Your task to perform on an android device: View the shopping cart on target.com. Search for razer huntsman on target.com, select the first entry, add it to the cart, then select checkout. Image 0: 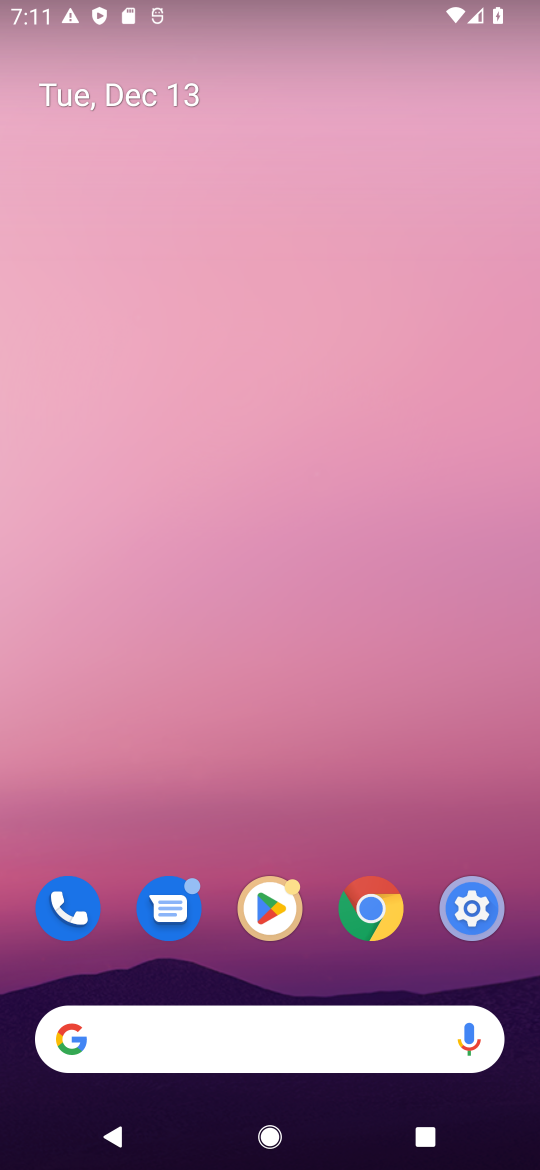
Step 0: press home button
Your task to perform on an android device: View the shopping cart on target.com. Search for razer huntsman on target.com, select the first entry, add it to the cart, then select checkout. Image 1: 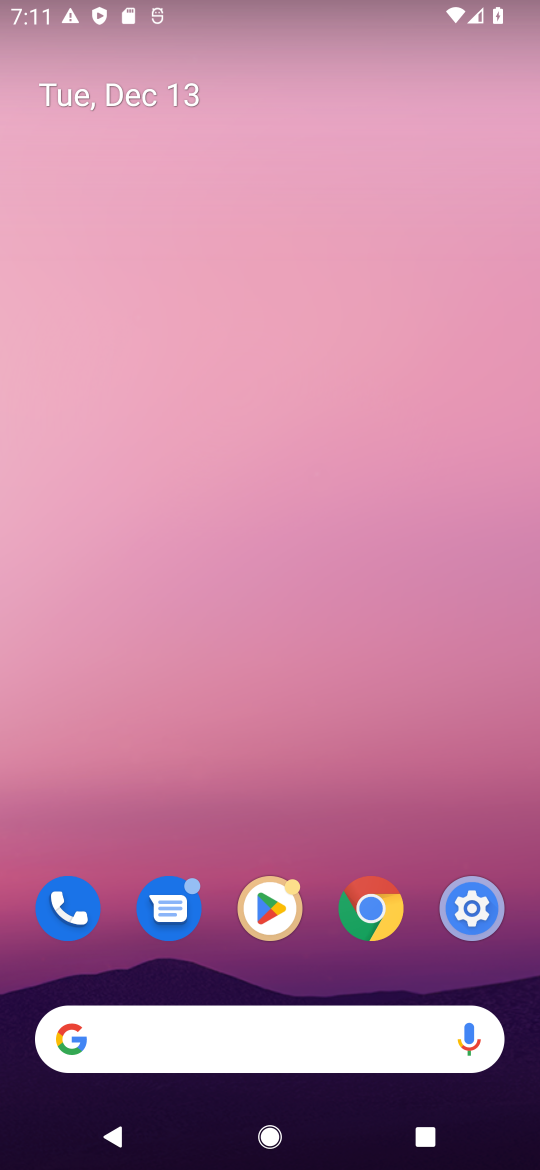
Step 1: click (104, 1032)
Your task to perform on an android device: View the shopping cart on target.com. Search for razer huntsman on target.com, select the first entry, add it to the cart, then select checkout. Image 2: 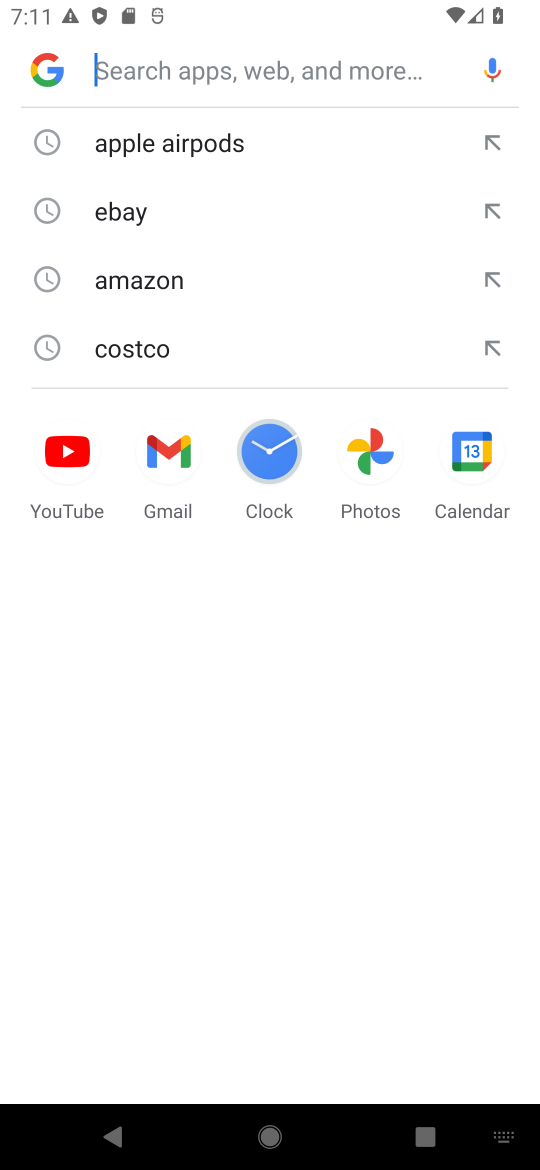
Step 2: type "target.com"
Your task to perform on an android device: View the shopping cart on target.com. Search for razer huntsman on target.com, select the first entry, add it to the cart, then select checkout. Image 3: 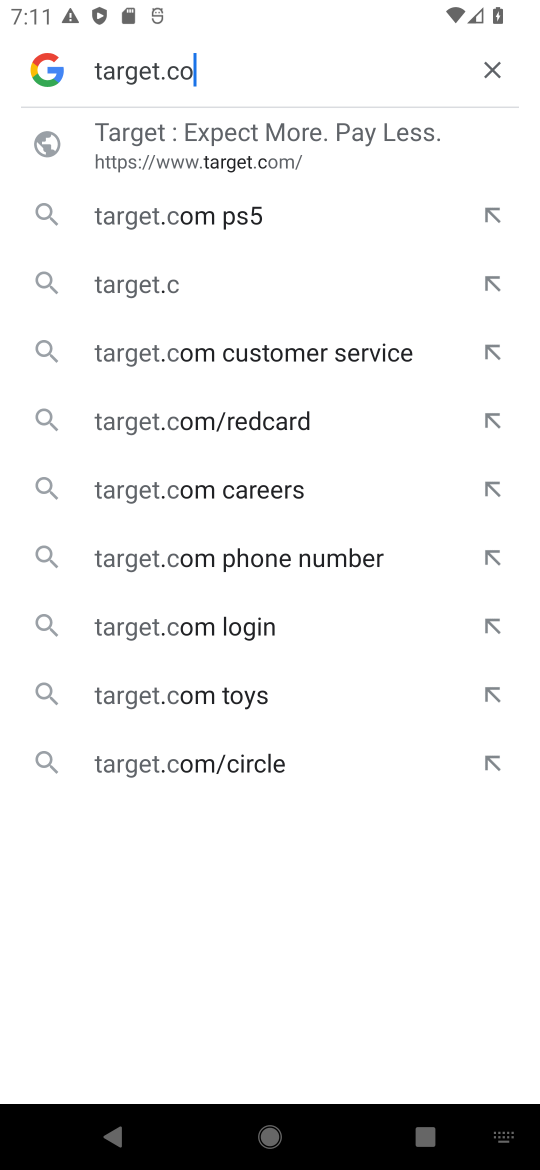
Step 3: press enter
Your task to perform on an android device: View the shopping cart on target.com. Search for razer huntsman on target.com, select the first entry, add it to the cart, then select checkout. Image 4: 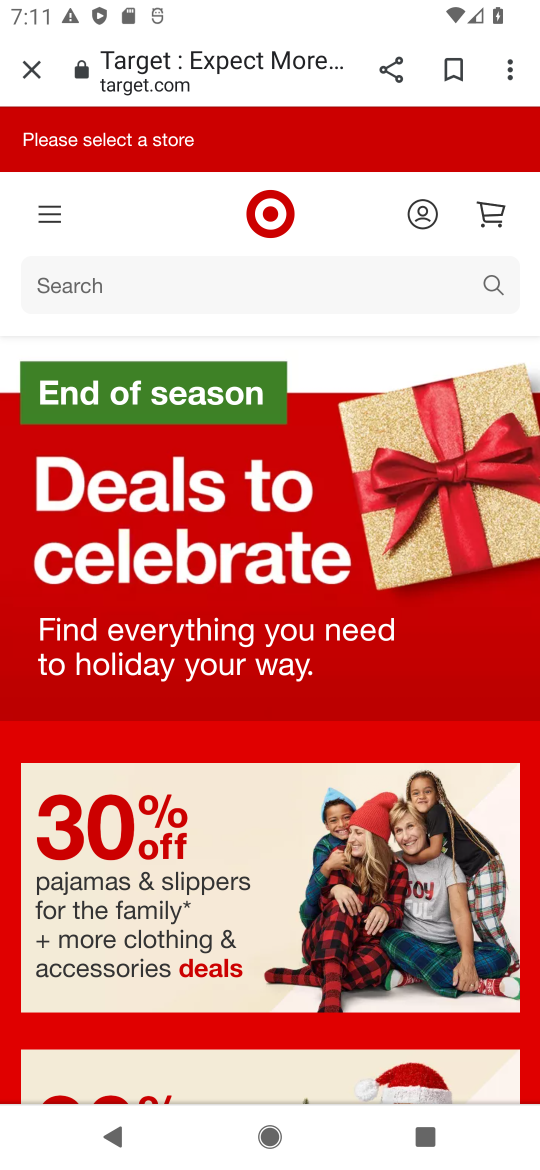
Step 4: click (491, 213)
Your task to perform on an android device: View the shopping cart on target.com. Search for razer huntsman on target.com, select the first entry, add it to the cart, then select checkout. Image 5: 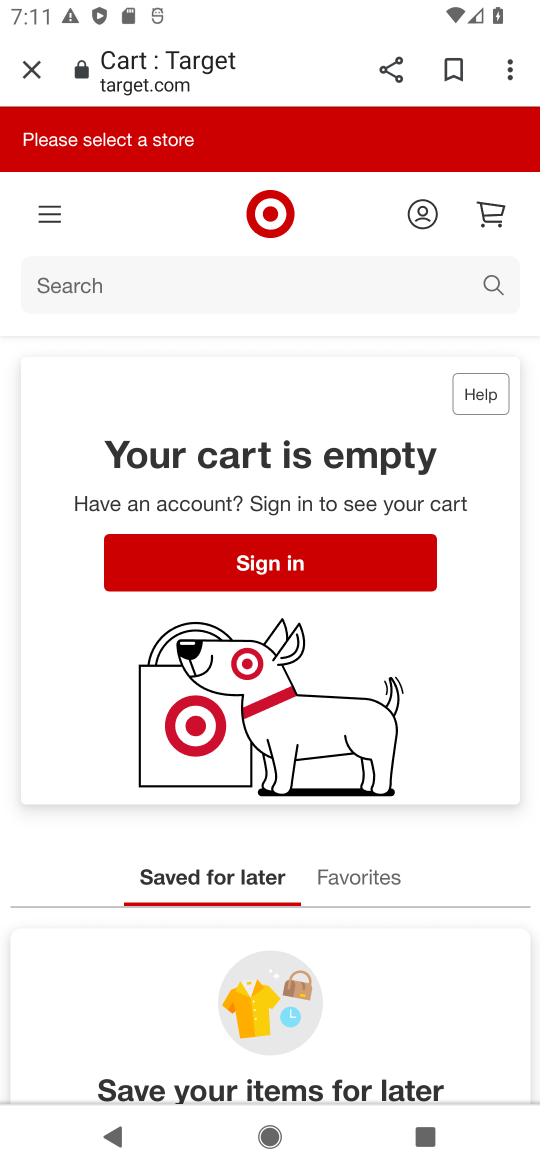
Step 5: click (194, 295)
Your task to perform on an android device: View the shopping cart on target.com. Search for razer huntsman on target.com, select the first entry, add it to the cart, then select checkout. Image 6: 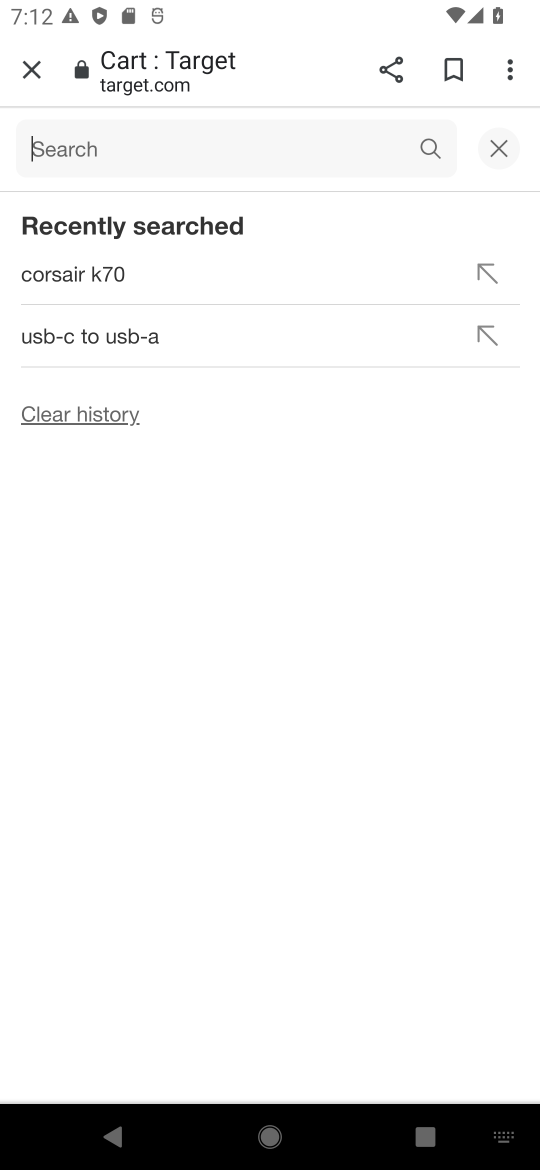
Step 6: type "razer huntsman"
Your task to perform on an android device: View the shopping cart on target.com. Search for razer huntsman on target.com, select the first entry, add it to the cart, then select checkout. Image 7: 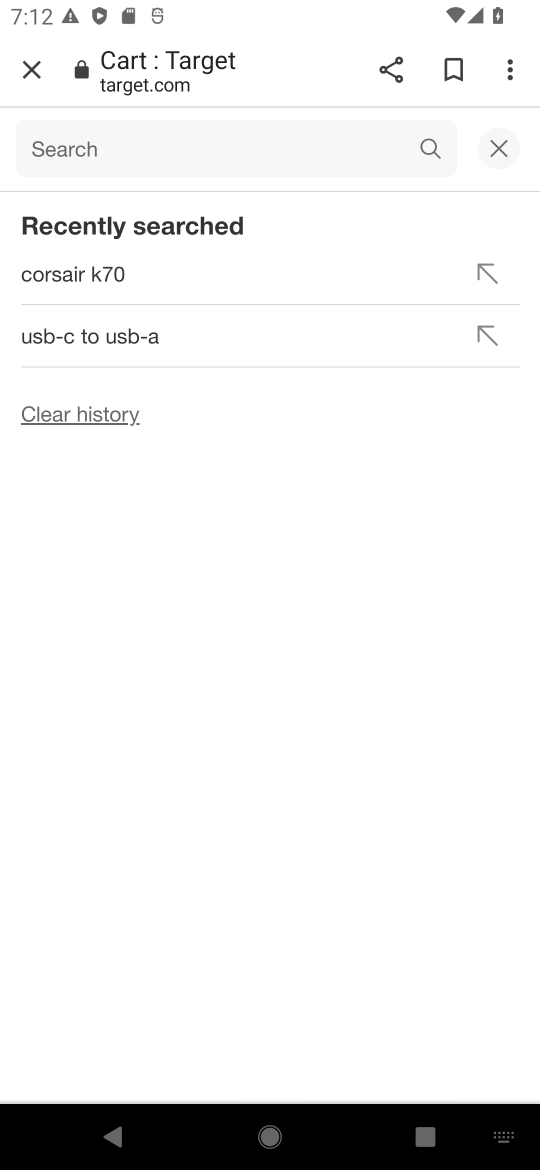
Step 7: press enter
Your task to perform on an android device: View the shopping cart on target.com. Search for razer huntsman on target.com, select the first entry, add it to the cart, then select checkout. Image 8: 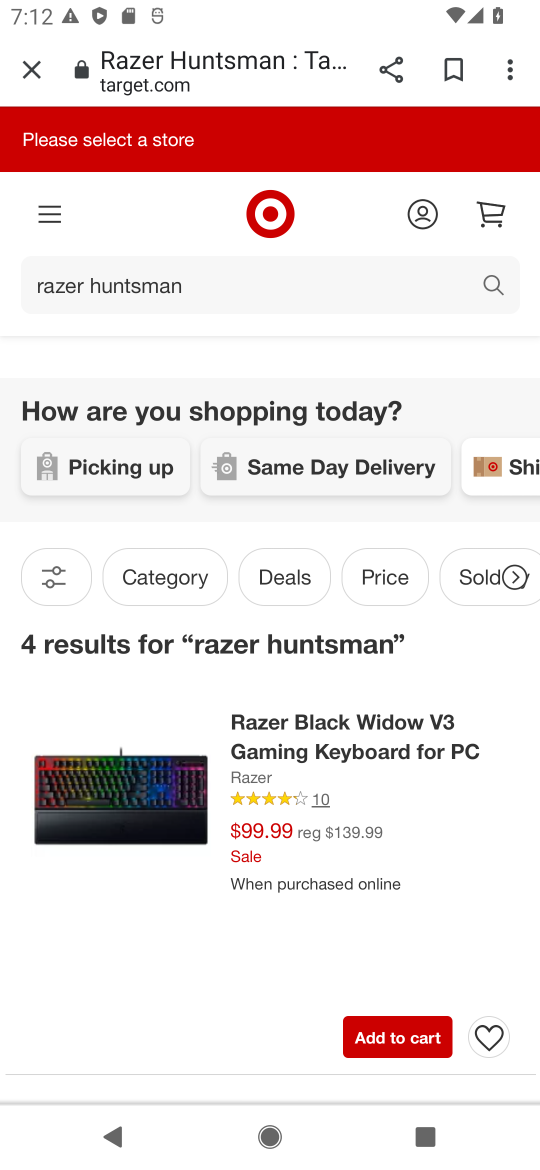
Step 8: drag from (297, 931) to (326, 476)
Your task to perform on an android device: View the shopping cart on target.com. Search for razer huntsman on target.com, select the first entry, add it to the cart, then select checkout. Image 9: 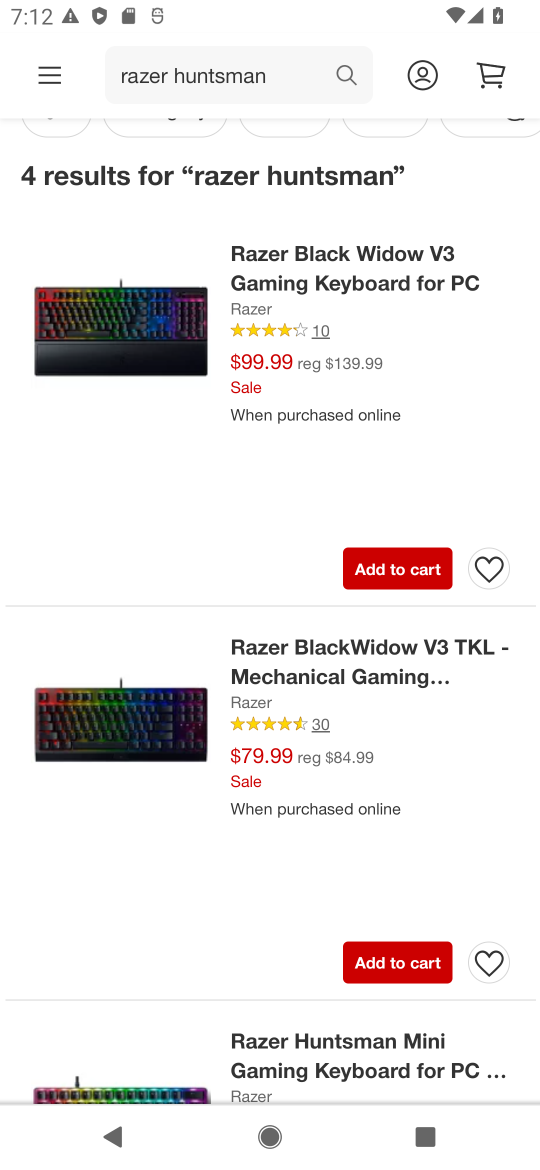
Step 9: drag from (270, 917) to (298, 468)
Your task to perform on an android device: View the shopping cart on target.com. Search for razer huntsman on target.com, select the first entry, add it to the cart, then select checkout. Image 10: 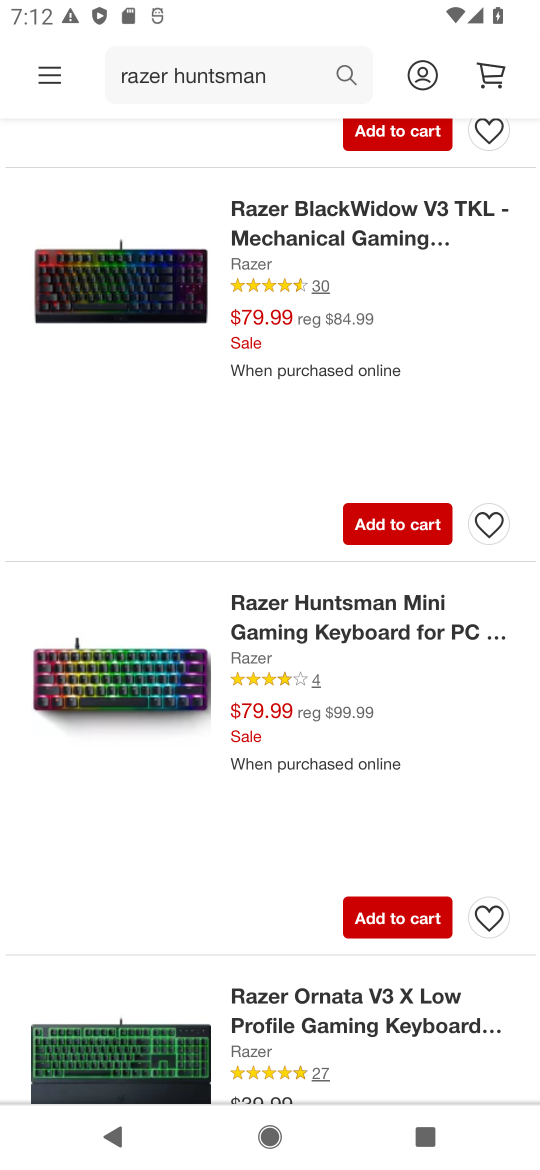
Step 10: click (380, 926)
Your task to perform on an android device: View the shopping cart on target.com. Search for razer huntsman on target.com, select the first entry, add it to the cart, then select checkout. Image 11: 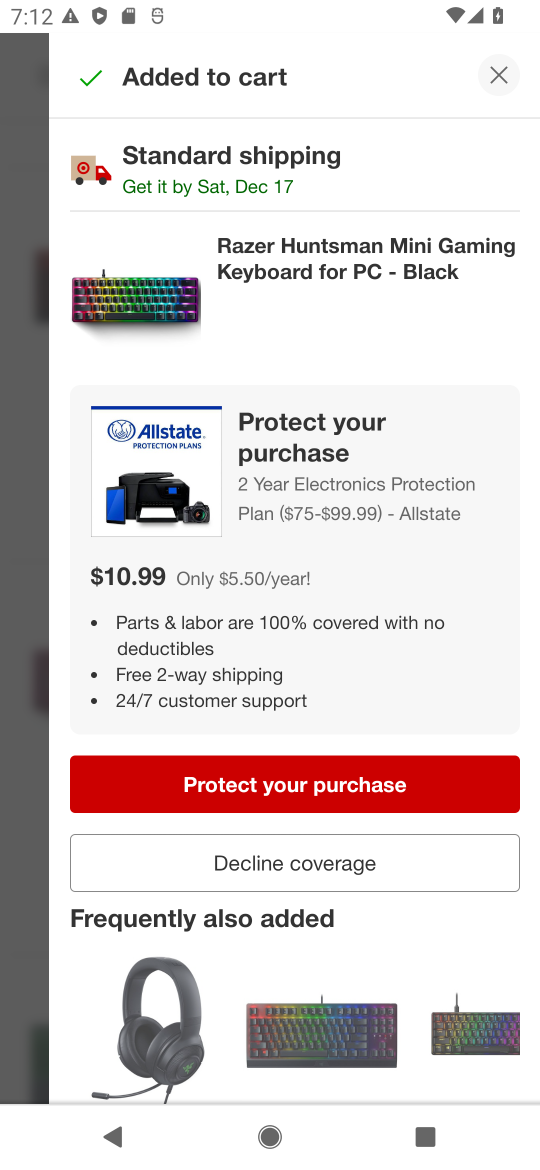
Step 11: task complete